Your task to perform on an android device: Check the news Image 0: 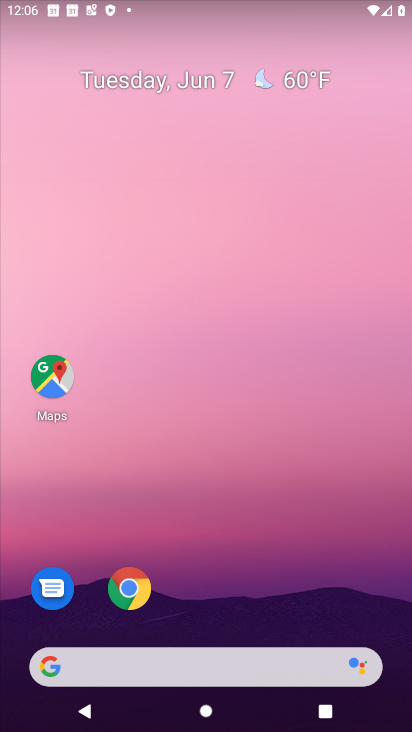
Step 0: click (154, 672)
Your task to perform on an android device: Check the news Image 1: 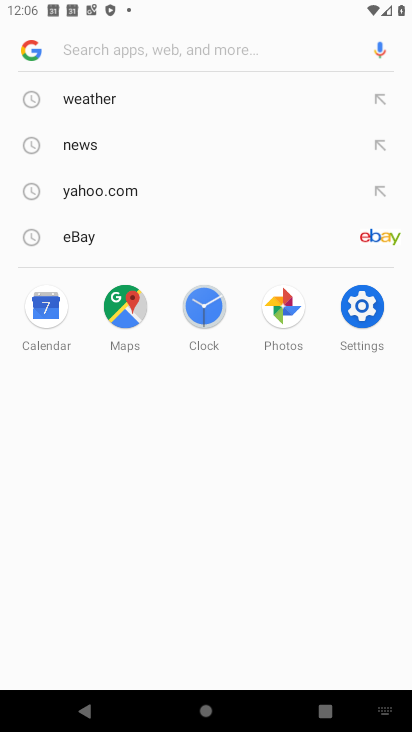
Step 1: click (120, 148)
Your task to perform on an android device: Check the news Image 2: 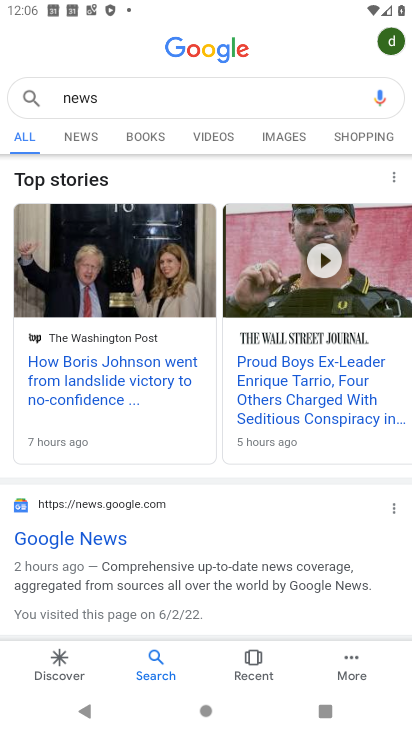
Step 2: task complete